Your task to perform on an android device: turn vacation reply on in the gmail app Image 0: 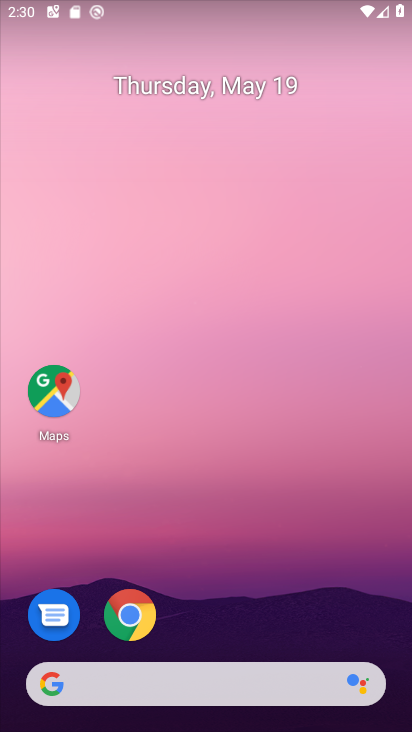
Step 0: drag from (243, 546) to (214, 30)
Your task to perform on an android device: turn vacation reply on in the gmail app Image 1: 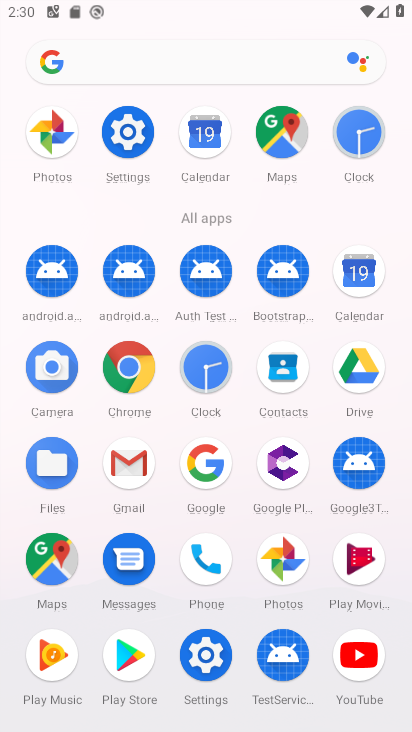
Step 1: drag from (10, 512) to (16, 273)
Your task to perform on an android device: turn vacation reply on in the gmail app Image 2: 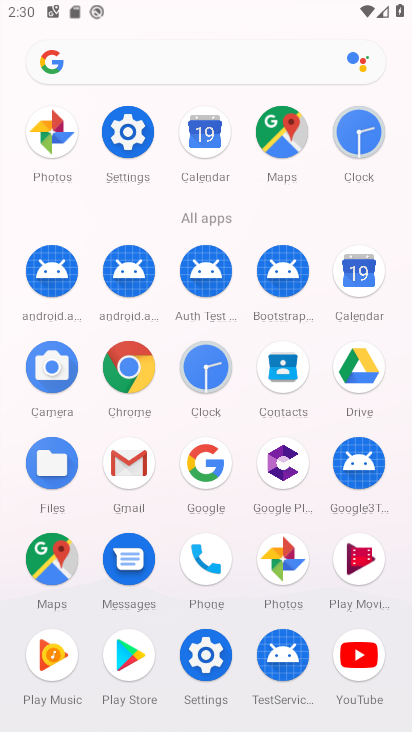
Step 2: click (128, 456)
Your task to perform on an android device: turn vacation reply on in the gmail app Image 3: 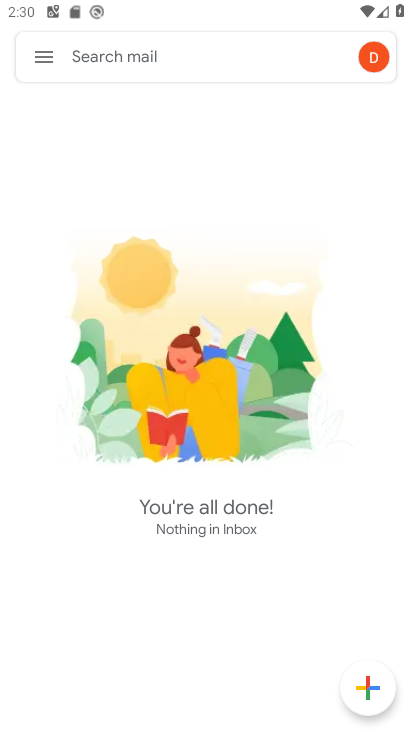
Step 3: click (43, 51)
Your task to perform on an android device: turn vacation reply on in the gmail app Image 4: 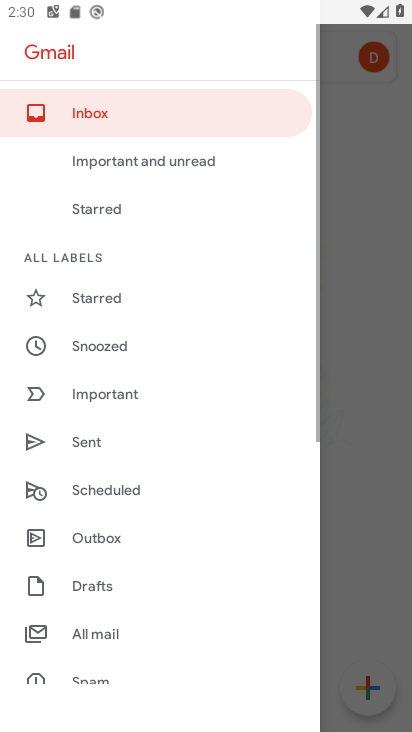
Step 4: drag from (187, 597) to (182, 127)
Your task to perform on an android device: turn vacation reply on in the gmail app Image 5: 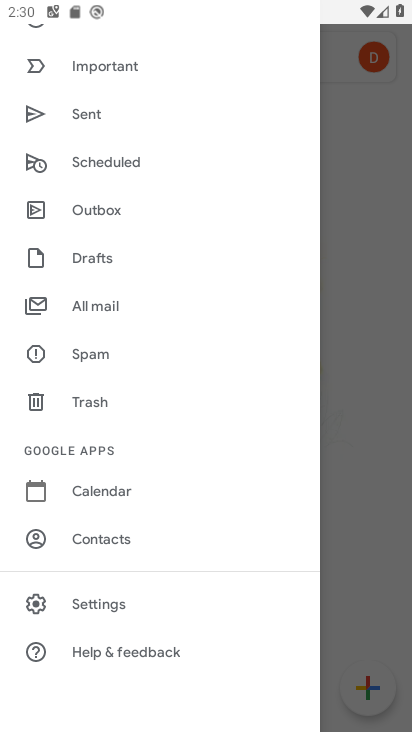
Step 5: click (95, 599)
Your task to perform on an android device: turn vacation reply on in the gmail app Image 6: 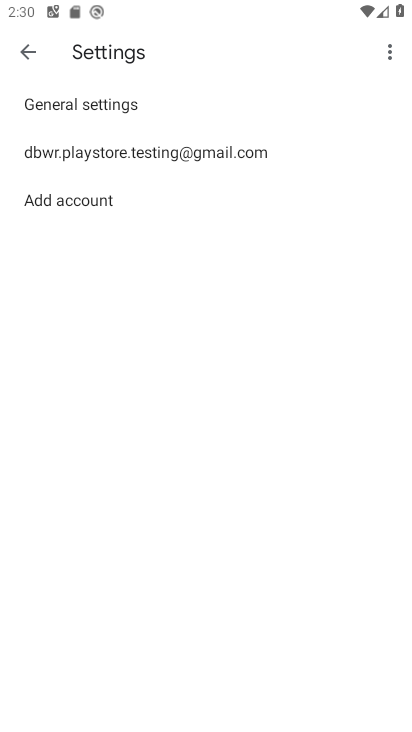
Step 6: click (172, 153)
Your task to perform on an android device: turn vacation reply on in the gmail app Image 7: 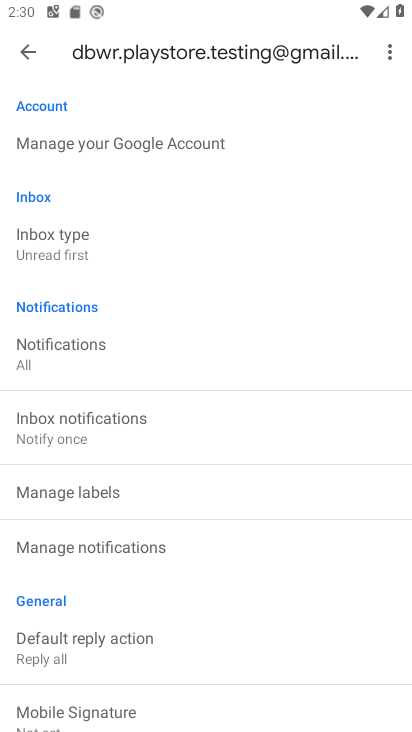
Step 7: drag from (196, 610) to (220, 189)
Your task to perform on an android device: turn vacation reply on in the gmail app Image 8: 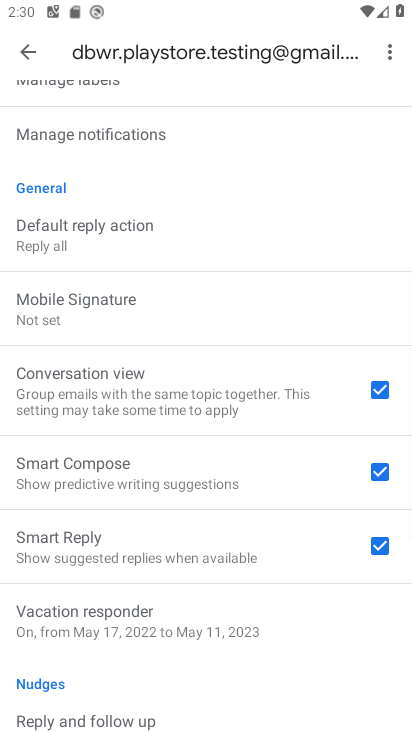
Step 8: drag from (175, 626) to (175, 379)
Your task to perform on an android device: turn vacation reply on in the gmail app Image 9: 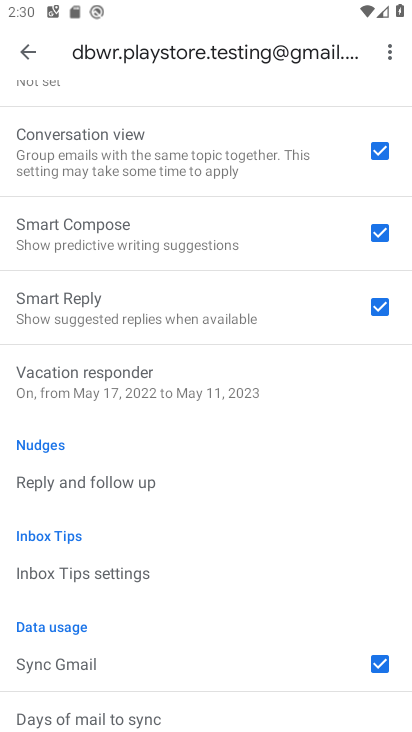
Step 9: click (134, 380)
Your task to perform on an android device: turn vacation reply on in the gmail app Image 10: 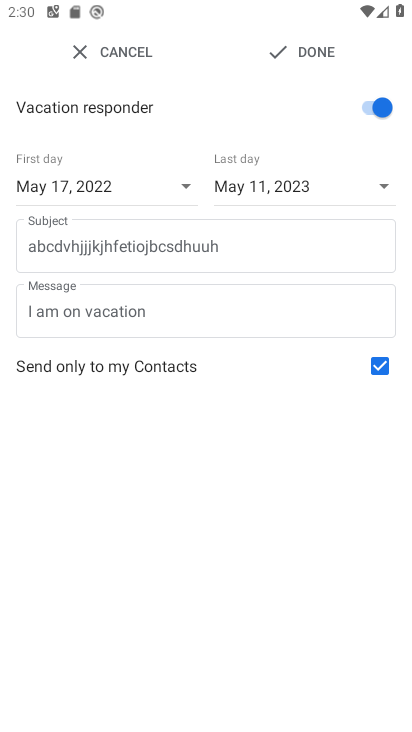
Step 10: click (289, 52)
Your task to perform on an android device: turn vacation reply on in the gmail app Image 11: 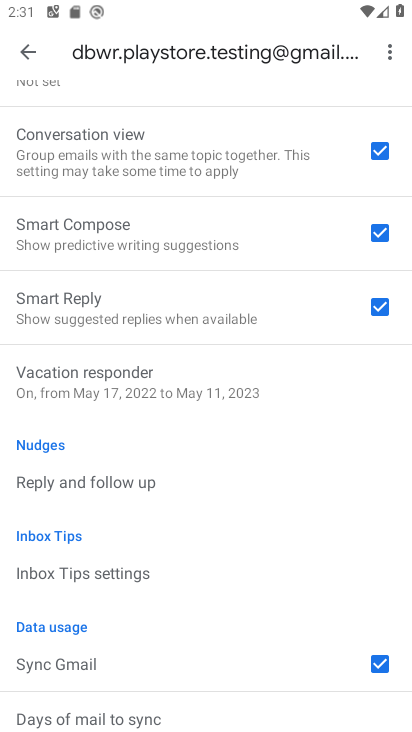
Step 11: task complete